Your task to perform on an android device: Go to accessibility settings Image 0: 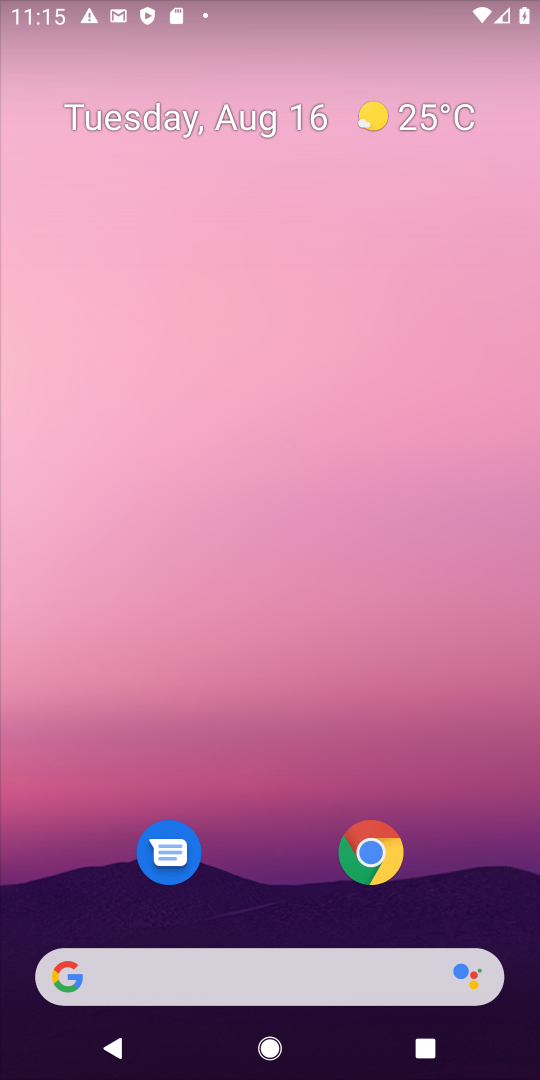
Step 0: drag from (281, 841) to (298, 284)
Your task to perform on an android device: Go to accessibility settings Image 1: 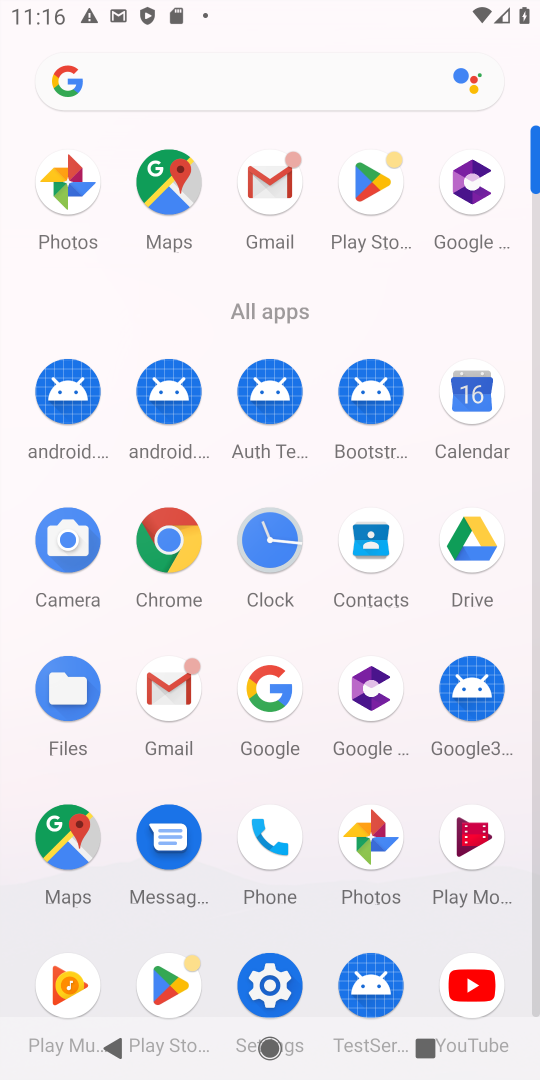
Step 1: click (243, 989)
Your task to perform on an android device: Go to accessibility settings Image 2: 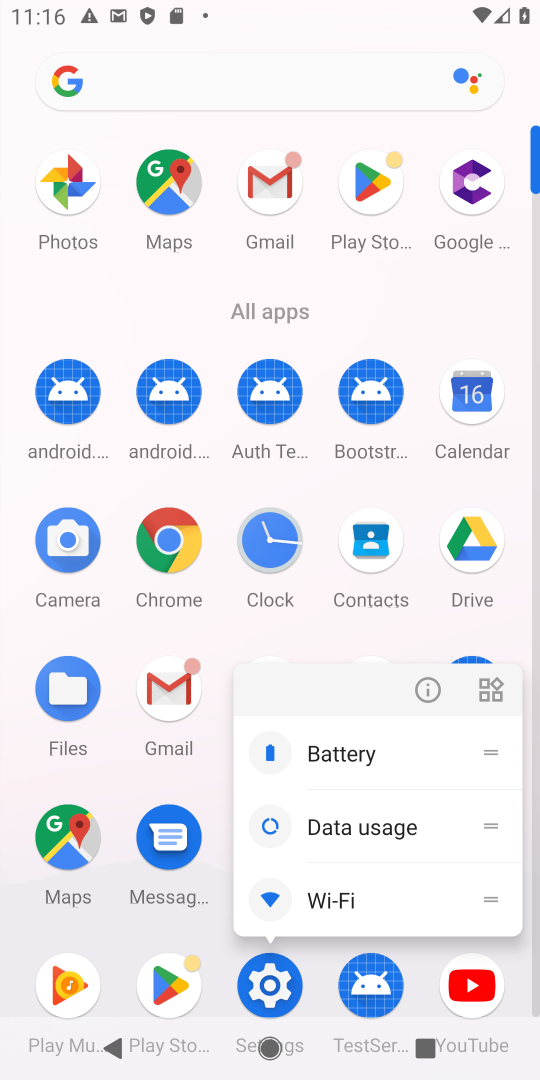
Step 2: click (345, 759)
Your task to perform on an android device: Go to accessibility settings Image 3: 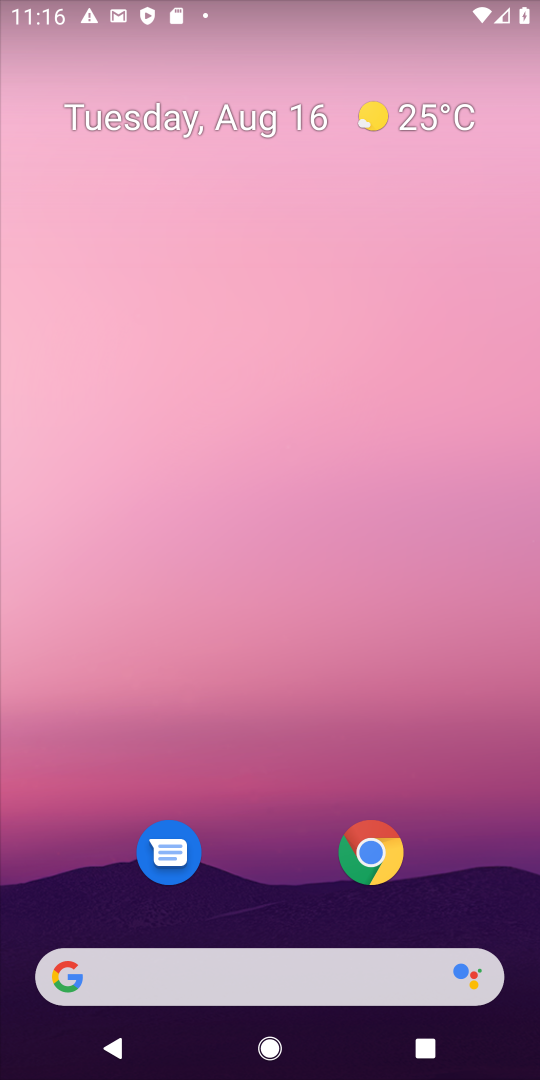
Step 3: task complete